Your task to perform on an android device: make emails show in primary in the gmail app Image 0: 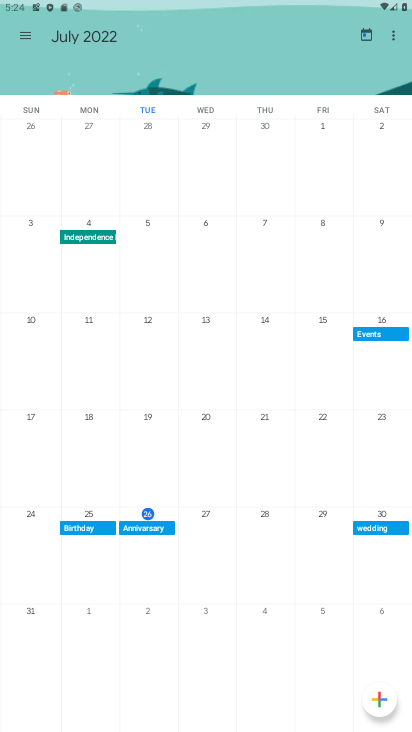
Step 0: task complete